Your task to perform on an android device: add a contact Image 0: 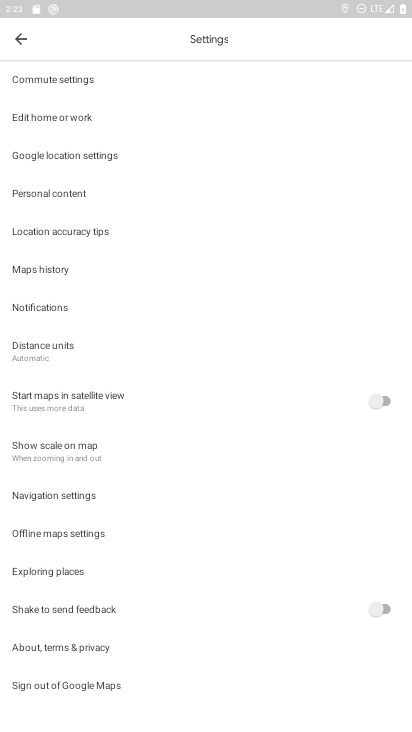
Step 0: press home button
Your task to perform on an android device: add a contact Image 1: 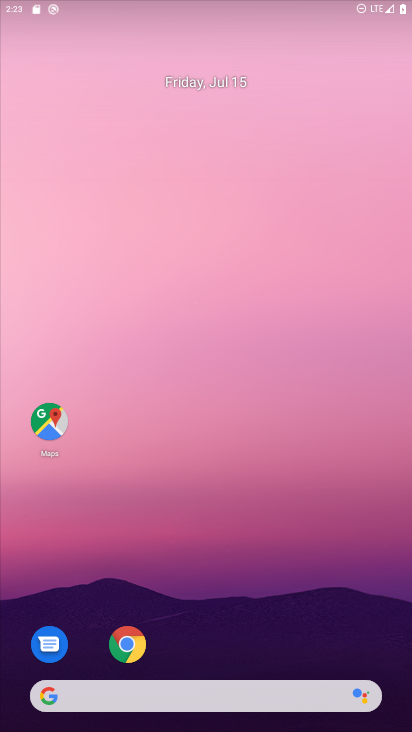
Step 1: drag from (57, 602) to (407, 60)
Your task to perform on an android device: add a contact Image 2: 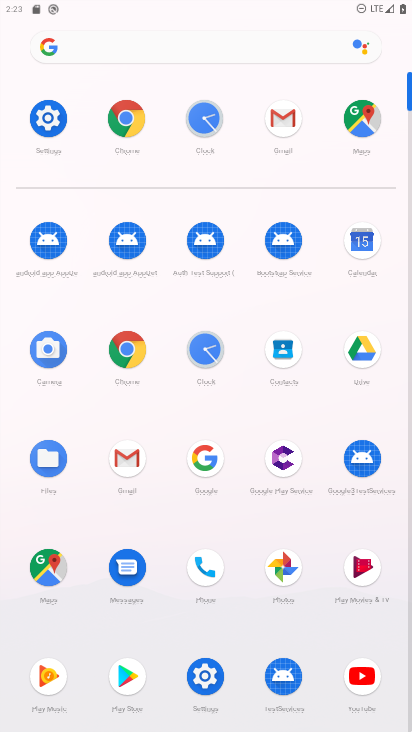
Step 2: click (188, 571)
Your task to perform on an android device: add a contact Image 3: 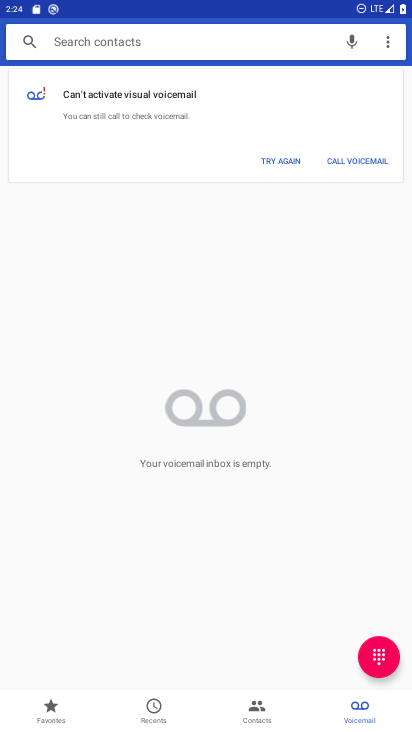
Step 3: click (260, 703)
Your task to perform on an android device: add a contact Image 4: 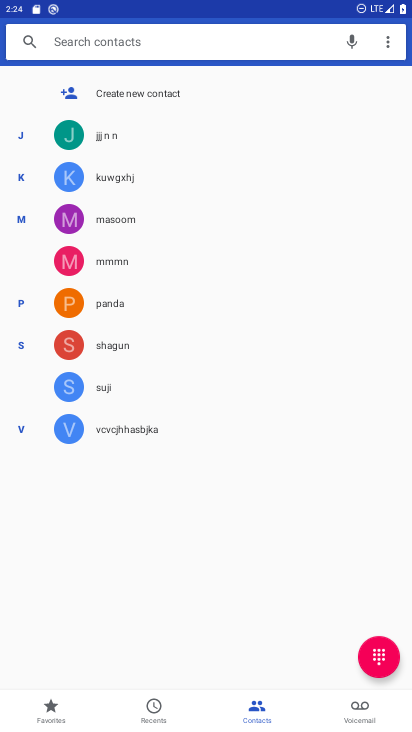
Step 4: click (192, 90)
Your task to perform on an android device: add a contact Image 5: 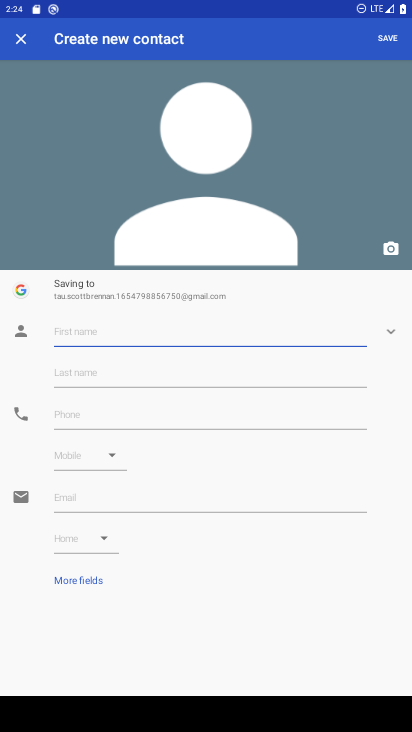
Step 5: click (116, 334)
Your task to perform on an android device: add a contact Image 6: 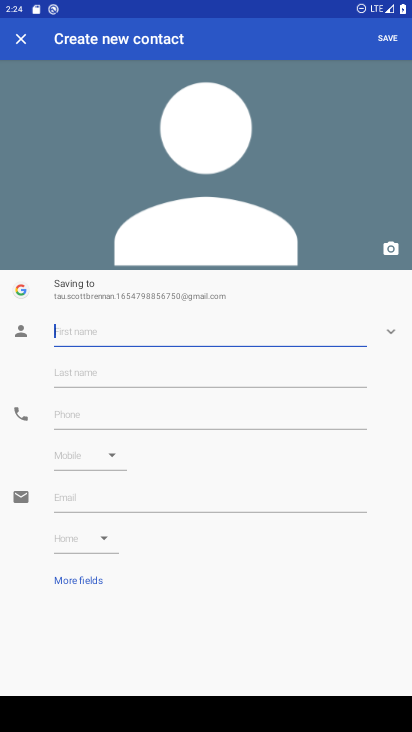
Step 6: type "htdtt"
Your task to perform on an android device: add a contact Image 7: 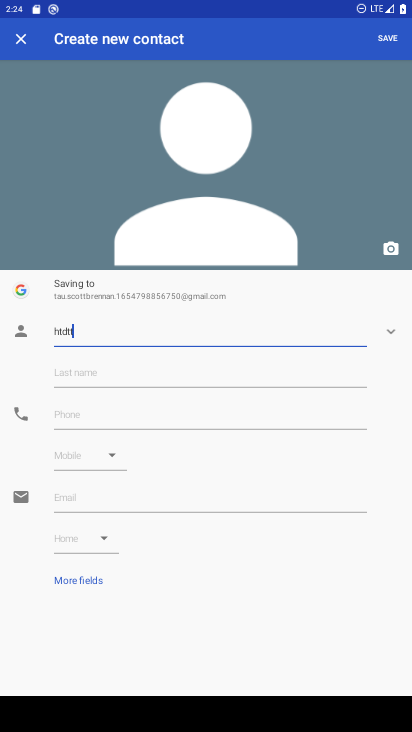
Step 7: type ""
Your task to perform on an android device: add a contact Image 8: 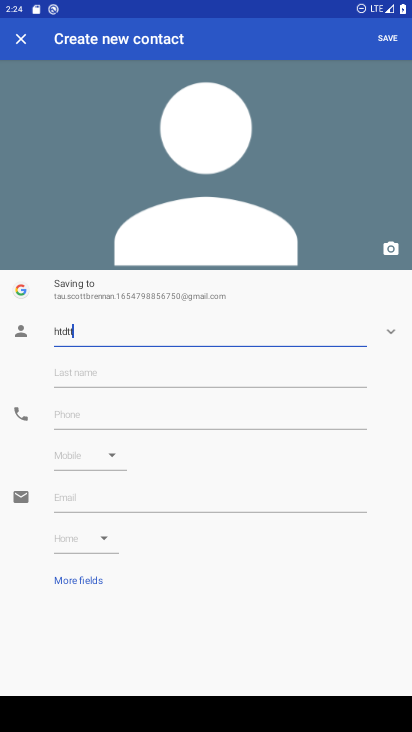
Step 8: click (386, 38)
Your task to perform on an android device: add a contact Image 9: 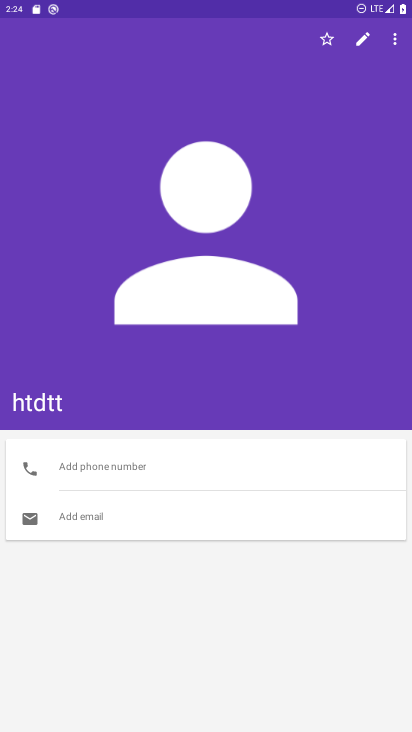
Step 9: task complete